Your task to perform on an android device: Go to network settings Image 0: 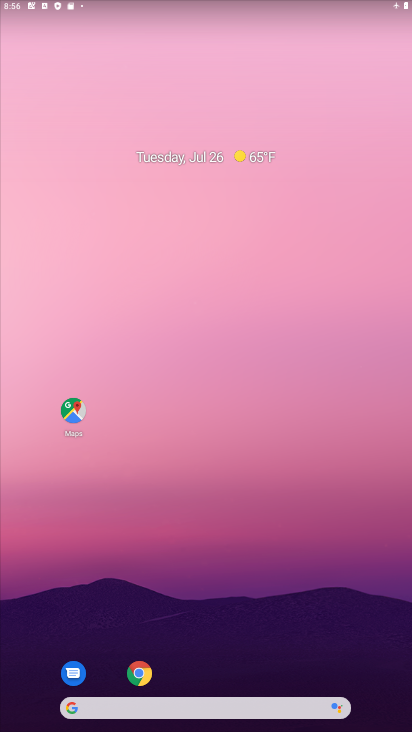
Step 0: drag from (243, 671) to (273, 49)
Your task to perform on an android device: Go to network settings Image 1: 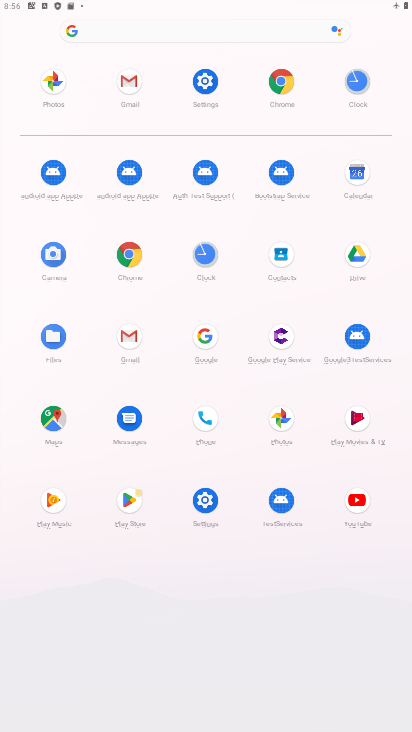
Step 1: click (204, 80)
Your task to perform on an android device: Go to network settings Image 2: 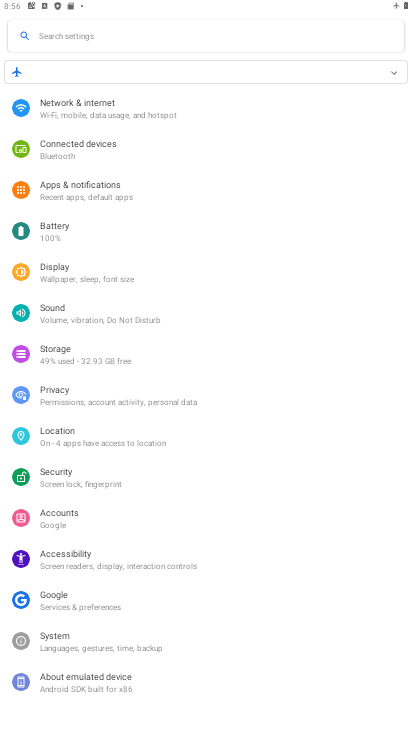
Step 2: click (100, 120)
Your task to perform on an android device: Go to network settings Image 3: 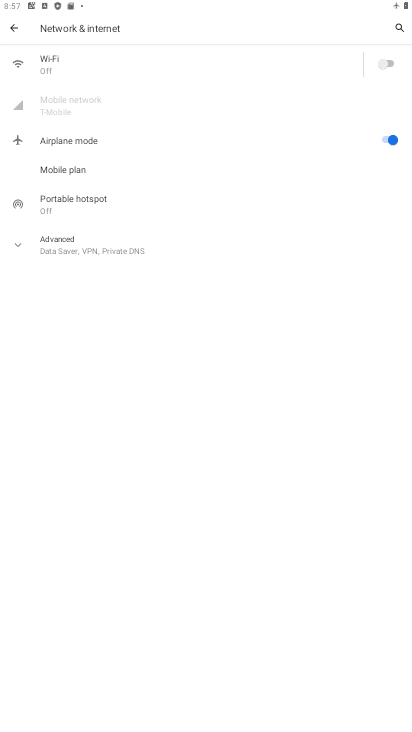
Step 3: task complete